Your task to perform on an android device: toggle priority inbox in the gmail app Image 0: 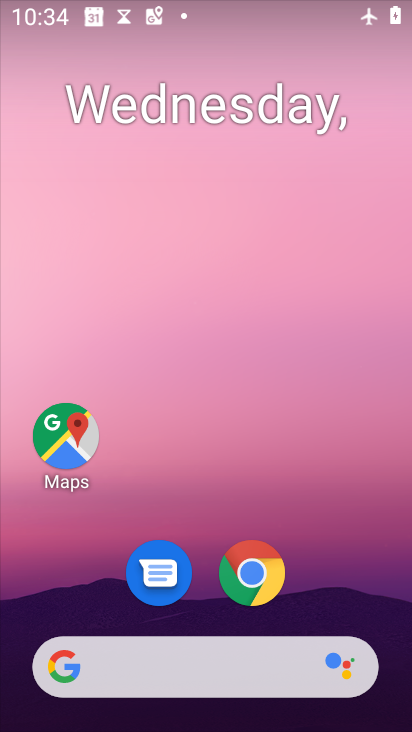
Step 0: drag from (329, 576) to (300, 258)
Your task to perform on an android device: toggle priority inbox in the gmail app Image 1: 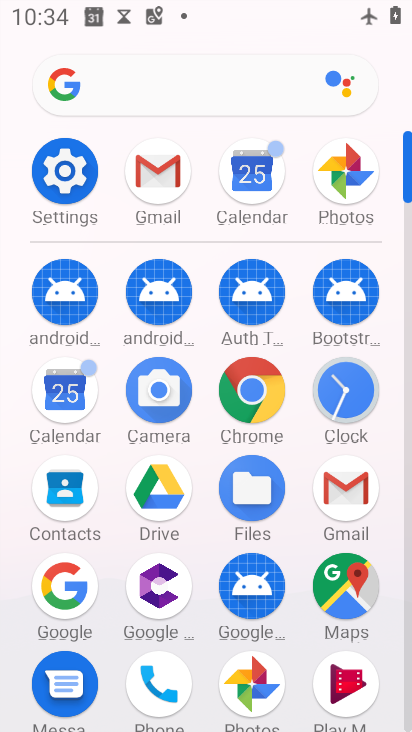
Step 1: click (340, 486)
Your task to perform on an android device: toggle priority inbox in the gmail app Image 2: 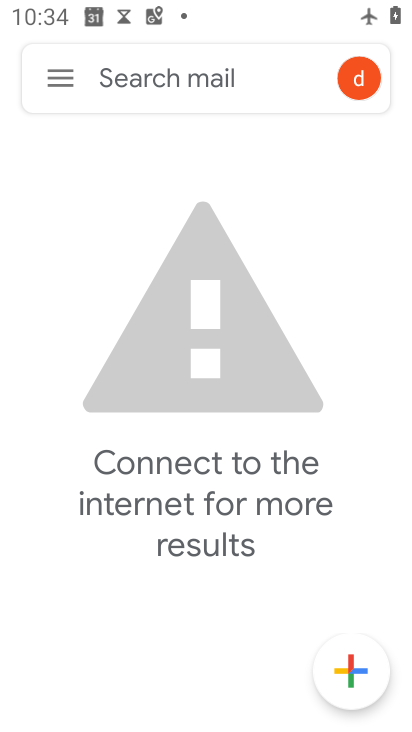
Step 2: click (57, 68)
Your task to perform on an android device: toggle priority inbox in the gmail app Image 3: 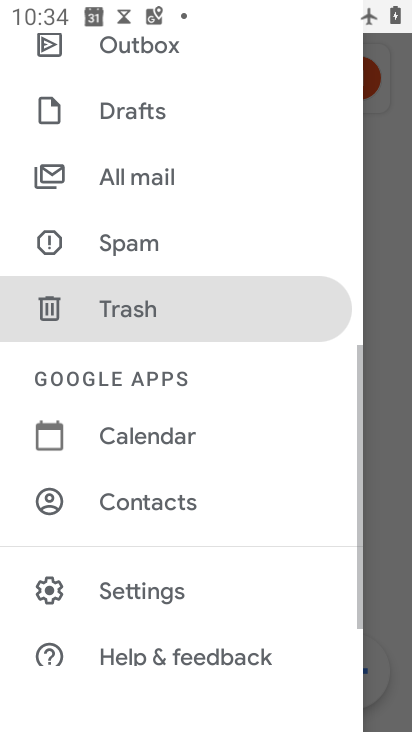
Step 3: click (145, 594)
Your task to perform on an android device: toggle priority inbox in the gmail app Image 4: 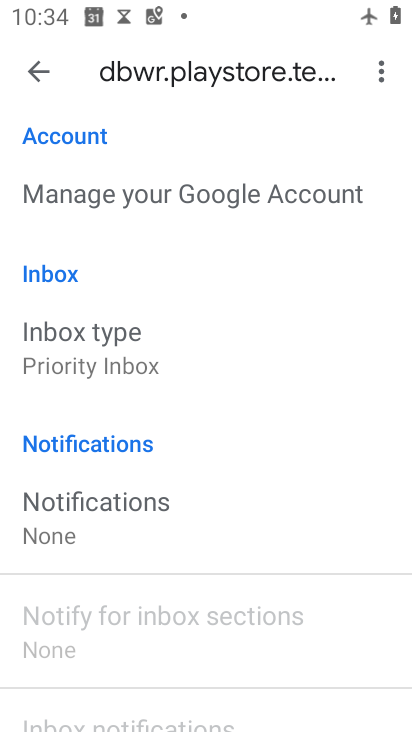
Step 4: click (126, 347)
Your task to perform on an android device: toggle priority inbox in the gmail app Image 5: 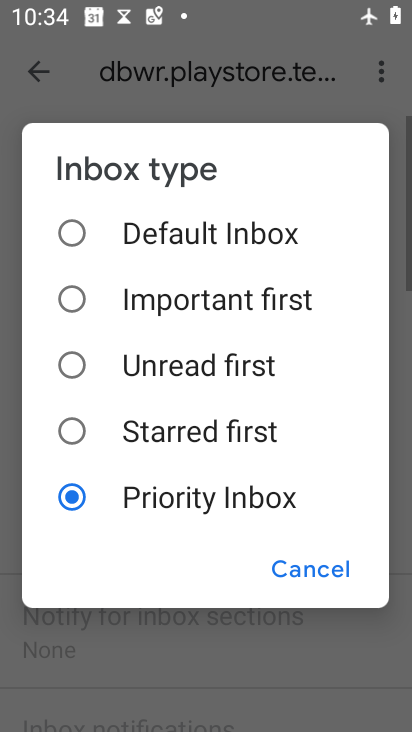
Step 5: click (157, 239)
Your task to perform on an android device: toggle priority inbox in the gmail app Image 6: 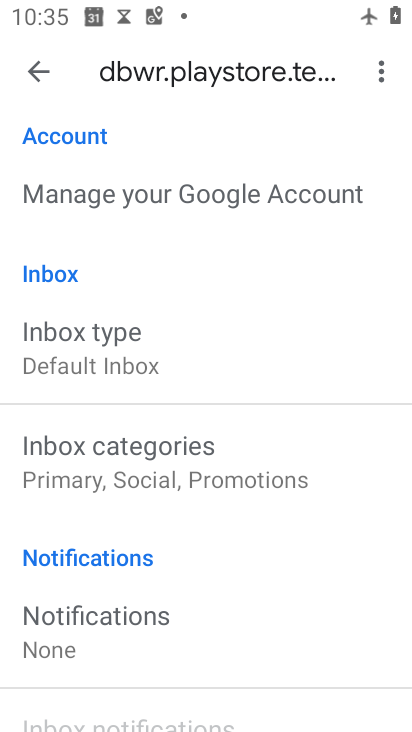
Step 6: task complete